Your task to perform on an android device: Open location settings Image 0: 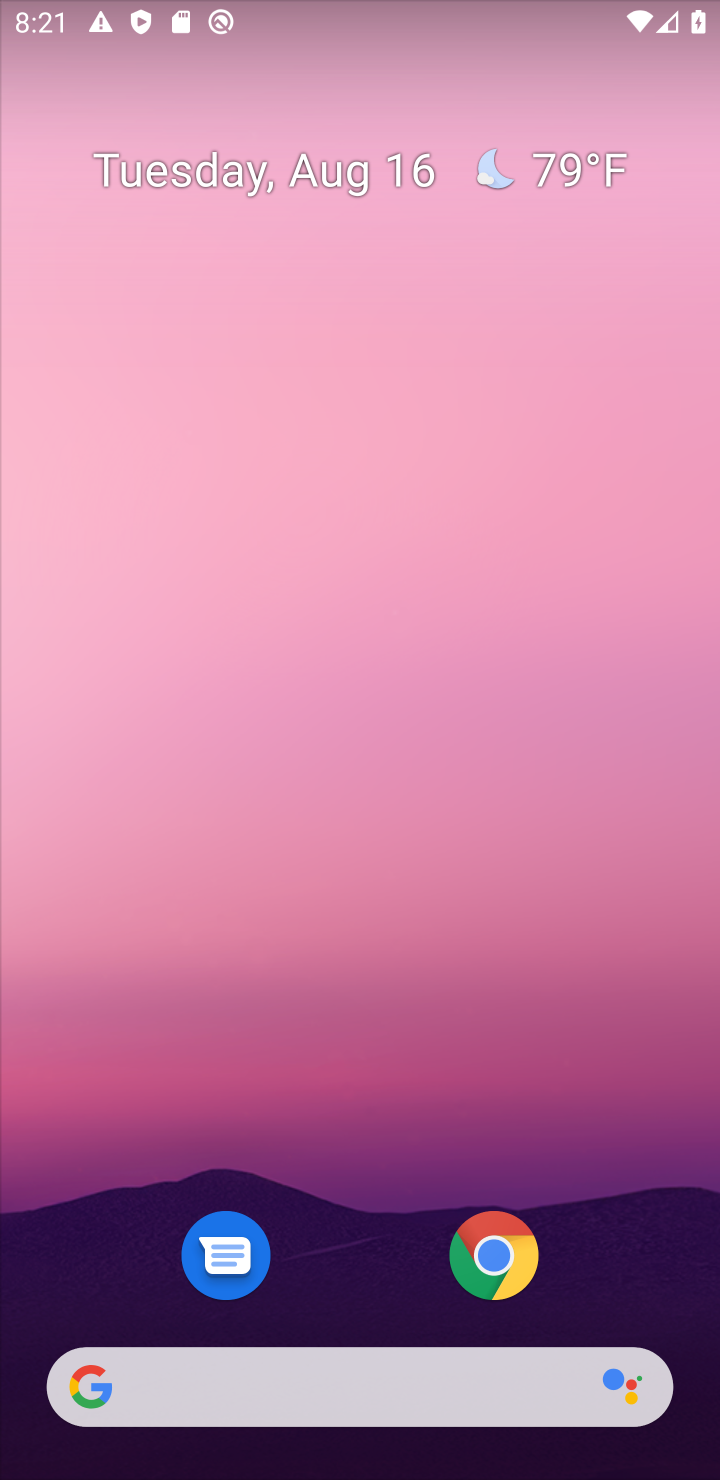
Step 0: drag from (366, 1364) to (316, 150)
Your task to perform on an android device: Open location settings Image 1: 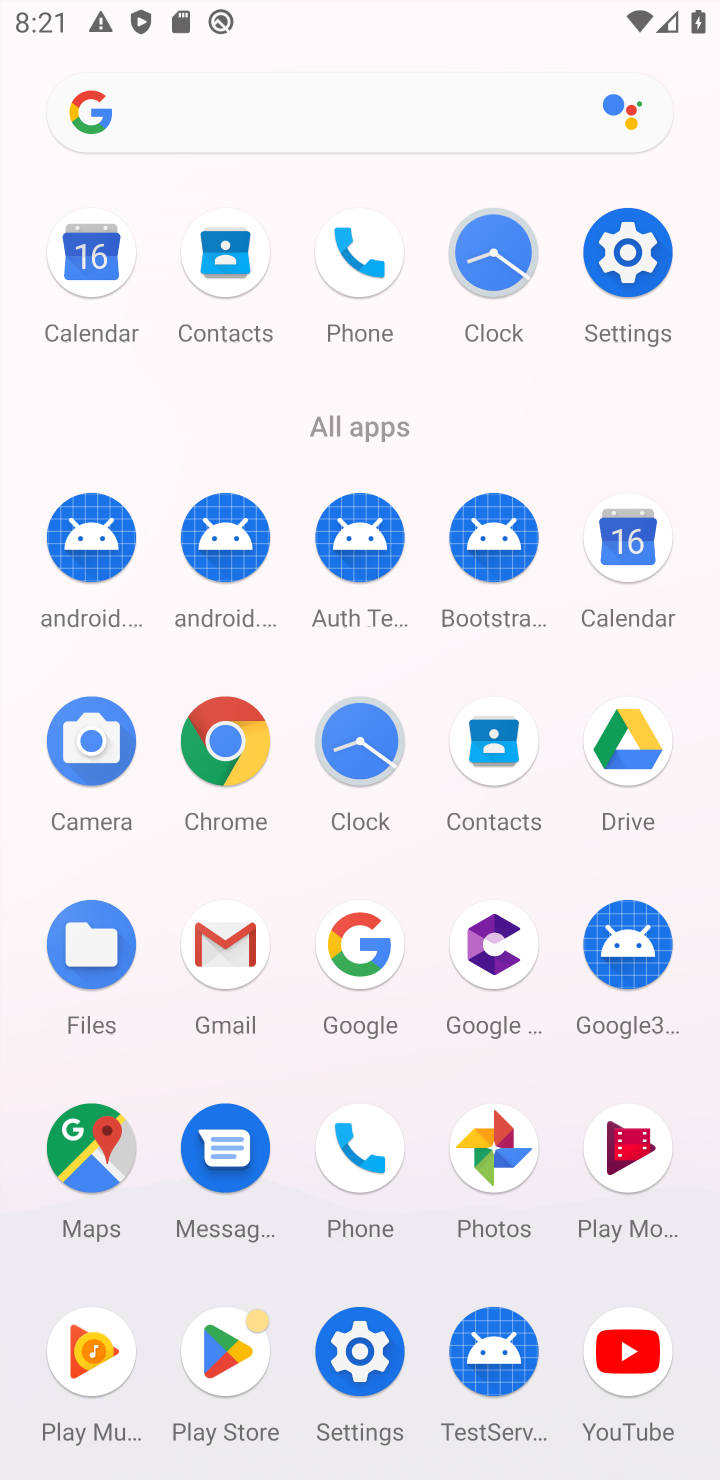
Step 1: click (646, 254)
Your task to perform on an android device: Open location settings Image 2: 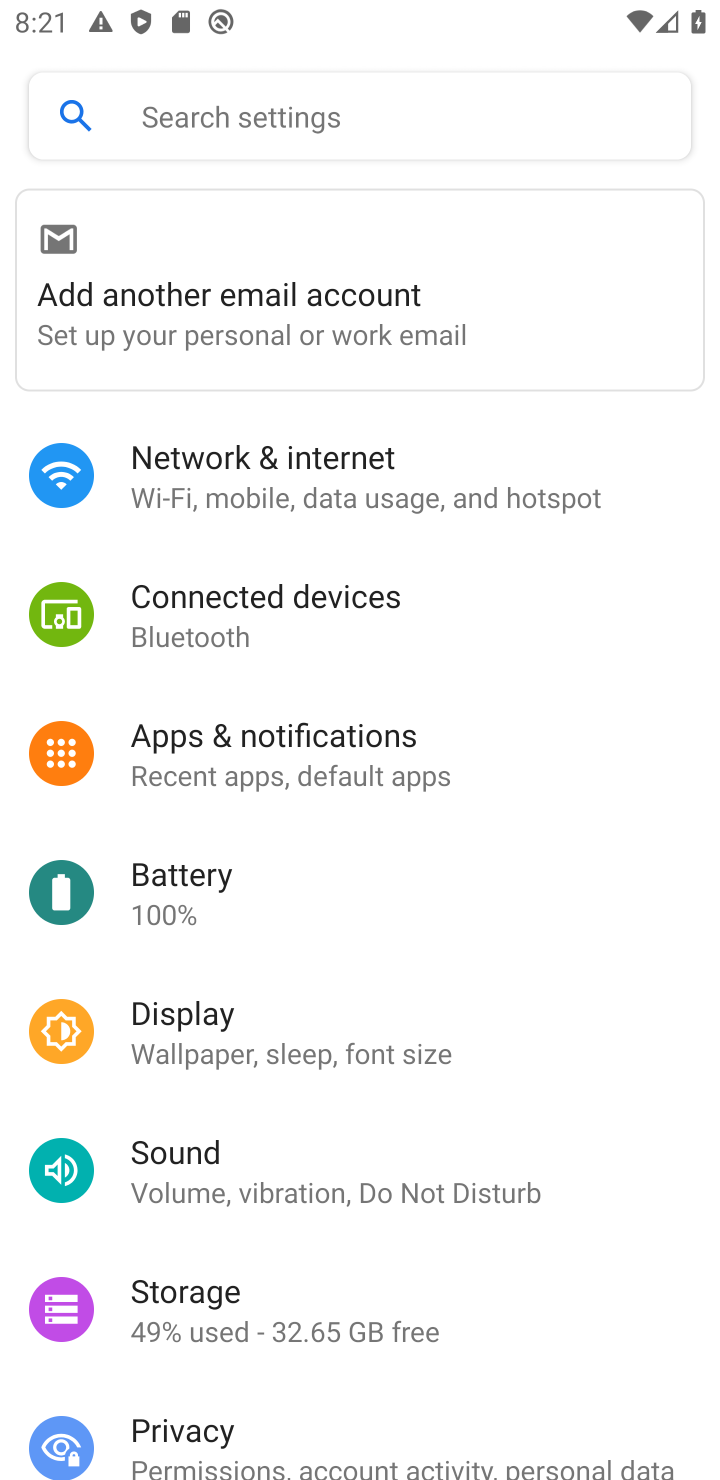
Step 2: drag from (281, 1403) to (432, 174)
Your task to perform on an android device: Open location settings Image 3: 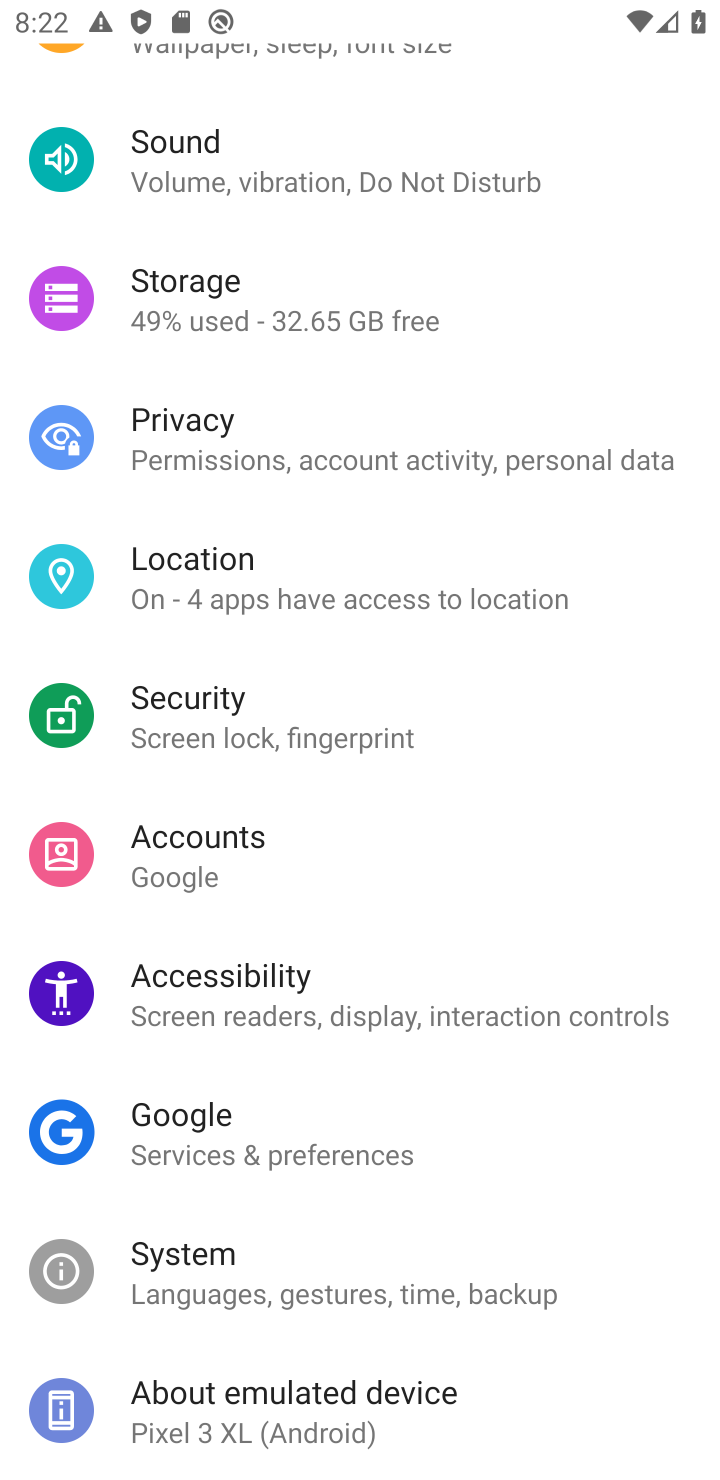
Step 3: click (205, 606)
Your task to perform on an android device: Open location settings Image 4: 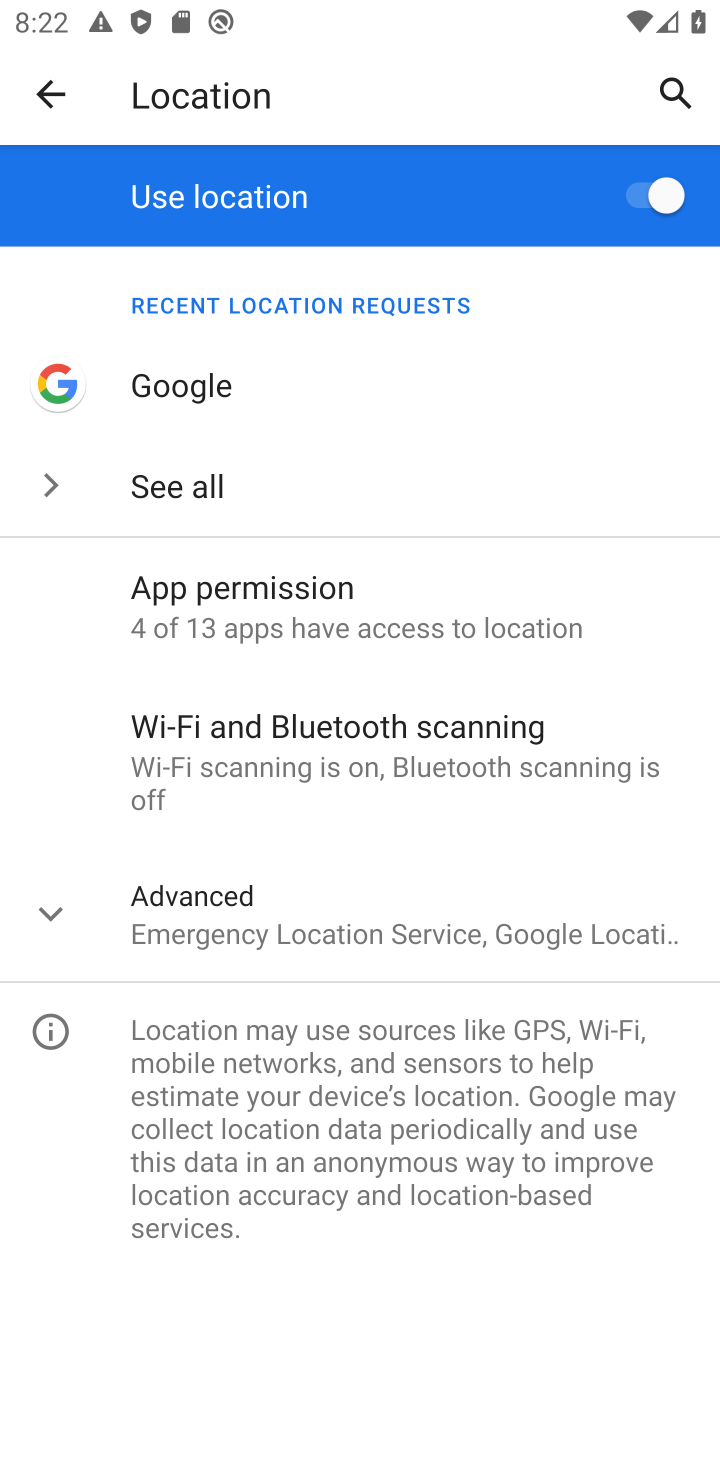
Step 4: task complete